Your task to perform on an android device: turn on javascript in the chrome app Image 0: 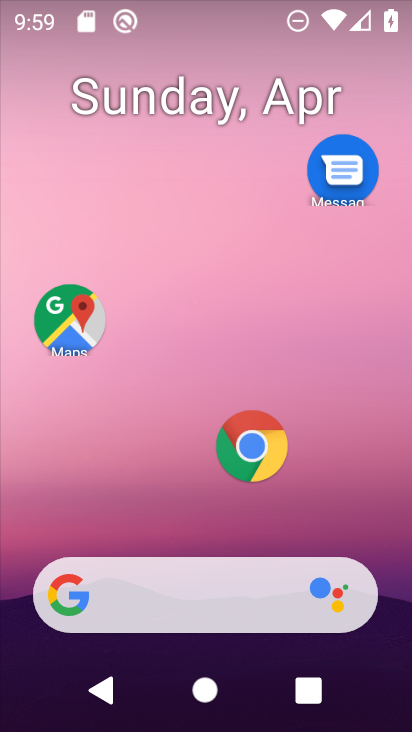
Step 0: drag from (208, 506) to (235, 184)
Your task to perform on an android device: turn on javascript in the chrome app Image 1: 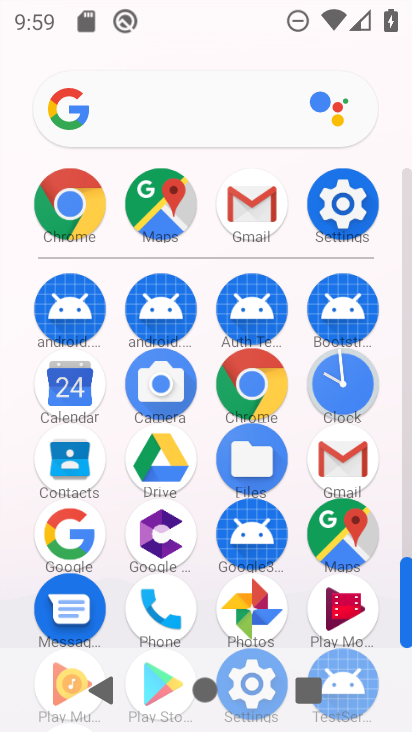
Step 1: click (241, 386)
Your task to perform on an android device: turn on javascript in the chrome app Image 2: 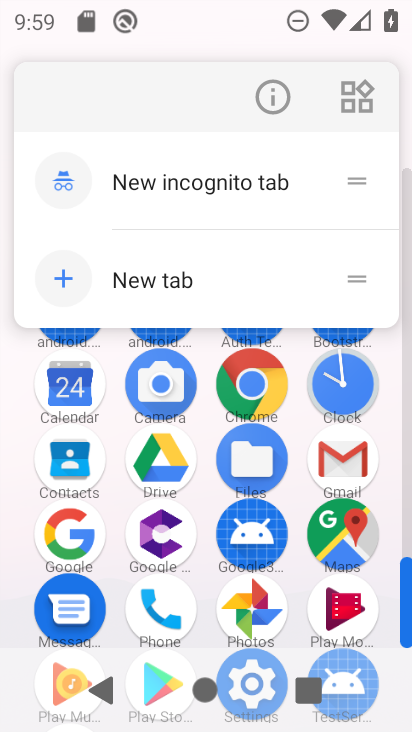
Step 2: click (283, 103)
Your task to perform on an android device: turn on javascript in the chrome app Image 3: 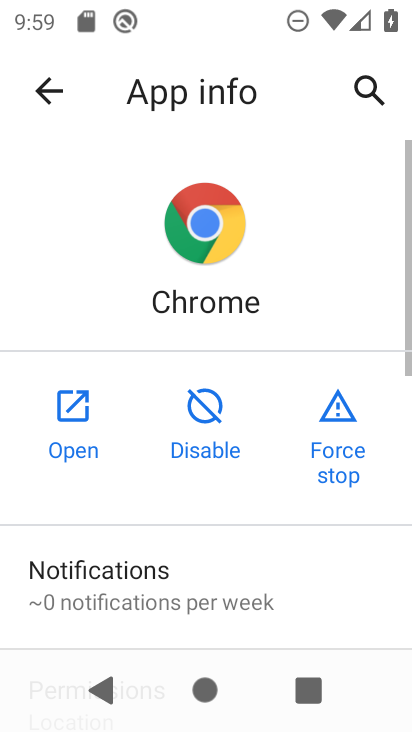
Step 3: click (71, 419)
Your task to perform on an android device: turn on javascript in the chrome app Image 4: 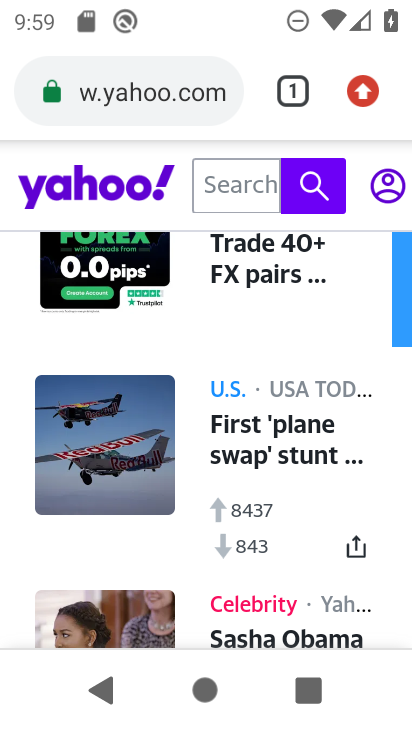
Step 4: drag from (372, 77) to (162, 474)
Your task to perform on an android device: turn on javascript in the chrome app Image 5: 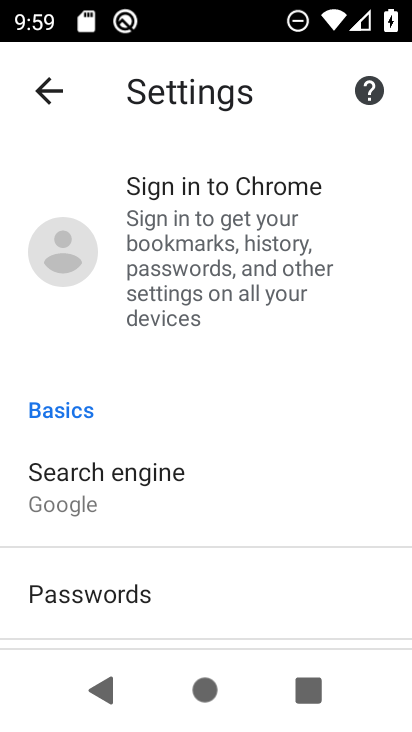
Step 5: drag from (161, 584) to (200, 205)
Your task to perform on an android device: turn on javascript in the chrome app Image 6: 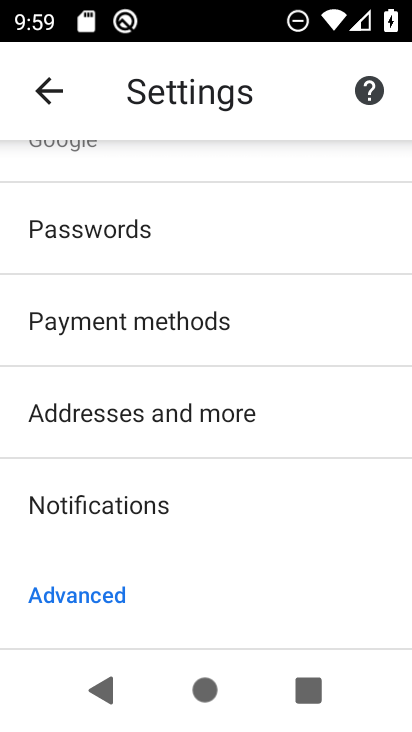
Step 6: drag from (177, 493) to (271, 43)
Your task to perform on an android device: turn on javascript in the chrome app Image 7: 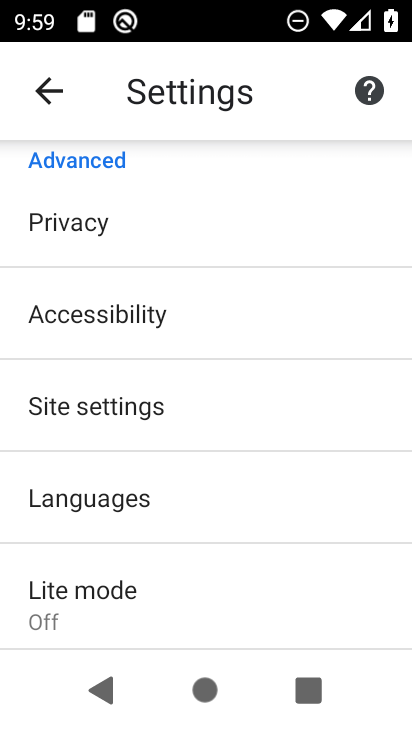
Step 7: click (159, 385)
Your task to perform on an android device: turn on javascript in the chrome app Image 8: 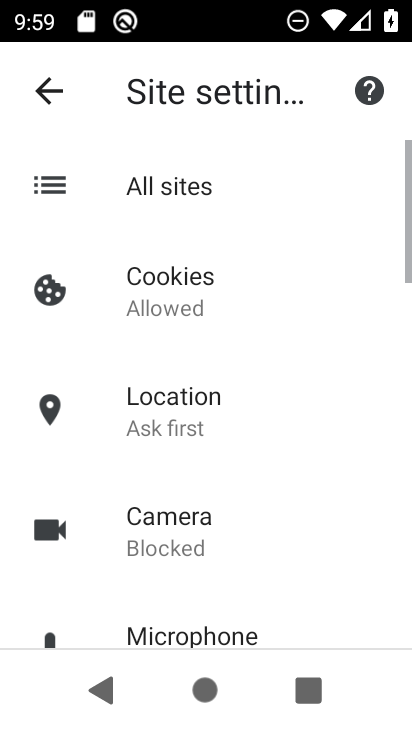
Step 8: drag from (214, 587) to (329, 16)
Your task to perform on an android device: turn on javascript in the chrome app Image 9: 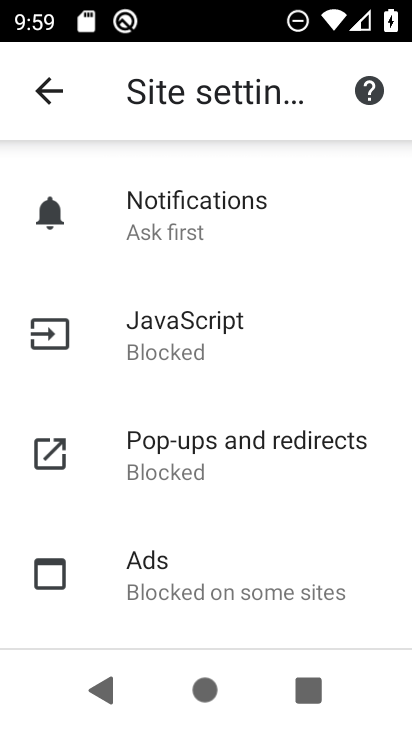
Step 9: click (210, 350)
Your task to perform on an android device: turn on javascript in the chrome app Image 10: 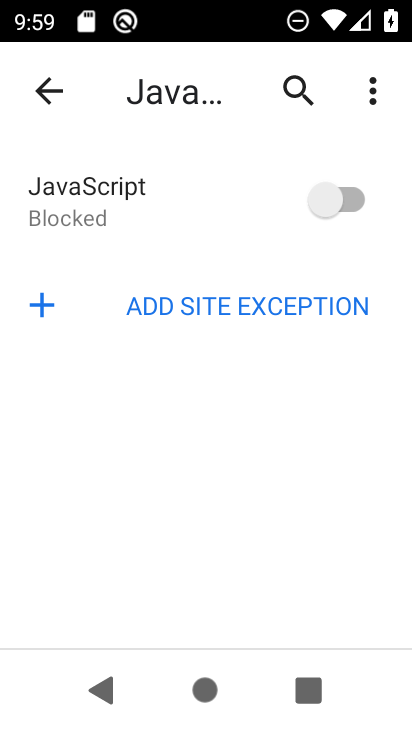
Step 10: click (337, 207)
Your task to perform on an android device: turn on javascript in the chrome app Image 11: 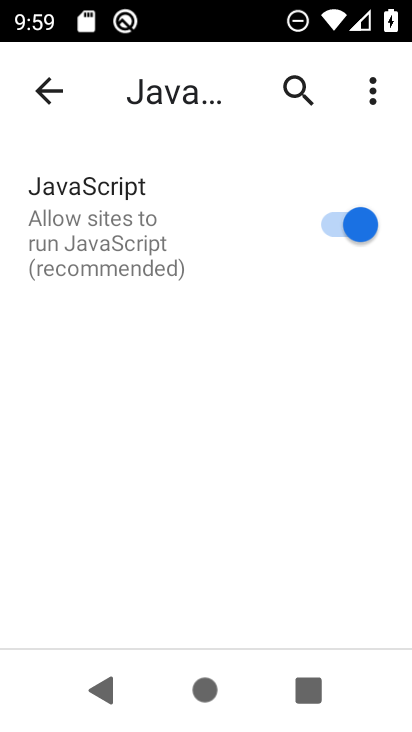
Step 11: task complete